Your task to perform on an android device: turn on javascript in the chrome app Image 0: 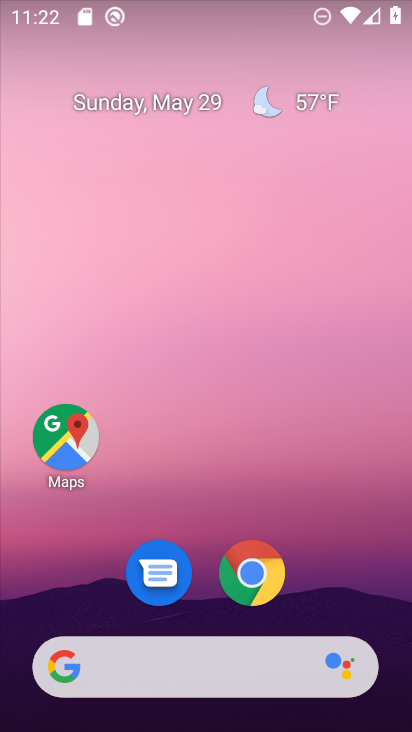
Step 0: drag from (74, 624) to (56, 16)
Your task to perform on an android device: turn on javascript in the chrome app Image 1: 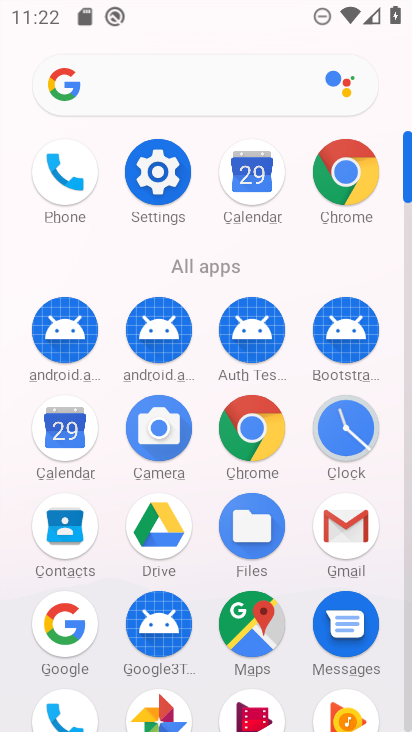
Step 1: click (246, 414)
Your task to perform on an android device: turn on javascript in the chrome app Image 2: 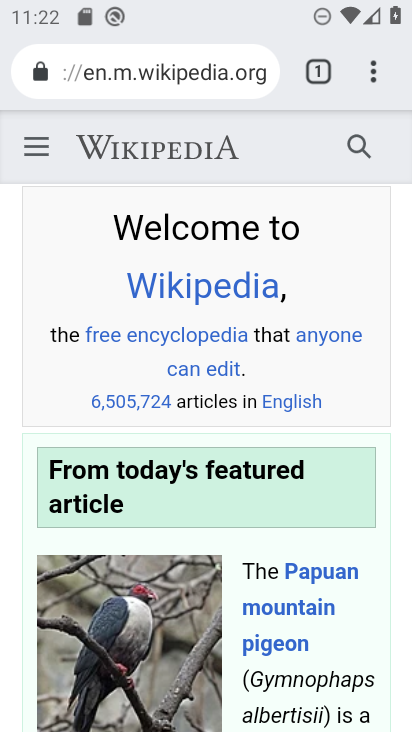
Step 2: drag from (368, 59) to (129, 565)
Your task to perform on an android device: turn on javascript in the chrome app Image 3: 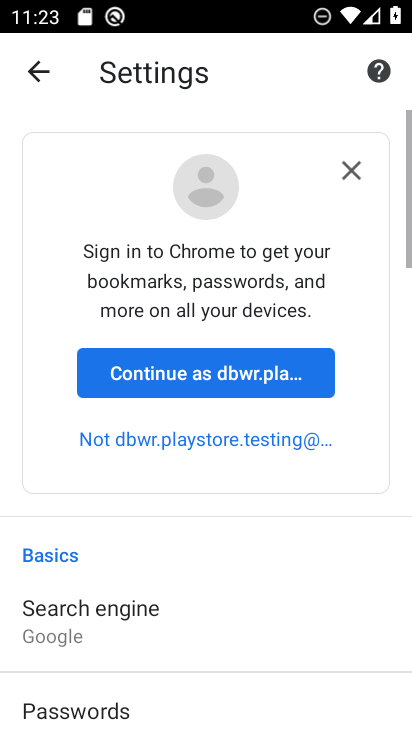
Step 3: drag from (208, 694) to (110, 78)
Your task to perform on an android device: turn on javascript in the chrome app Image 4: 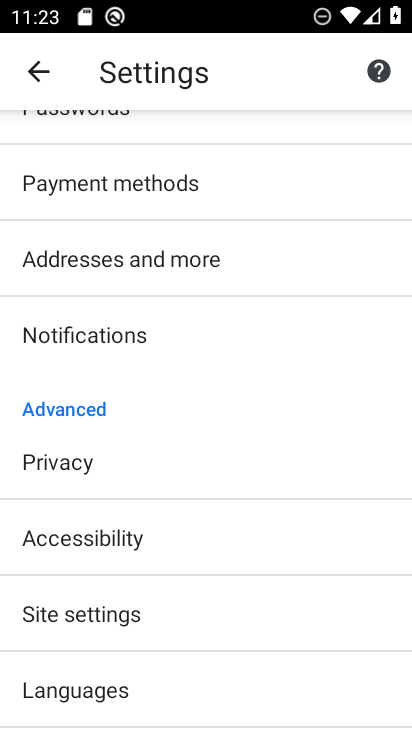
Step 4: click (186, 604)
Your task to perform on an android device: turn on javascript in the chrome app Image 5: 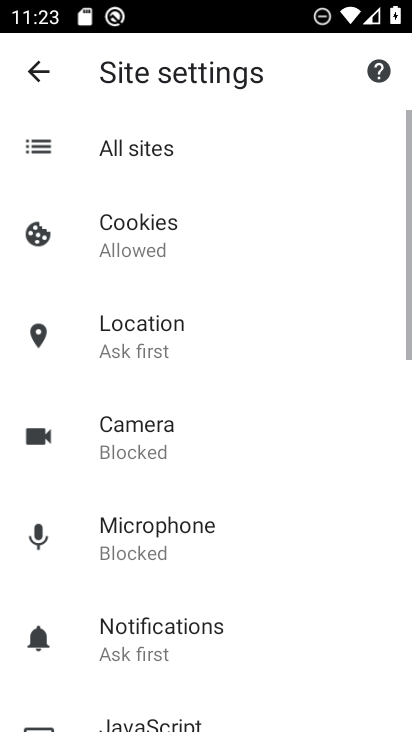
Step 5: drag from (193, 588) to (192, 422)
Your task to perform on an android device: turn on javascript in the chrome app Image 6: 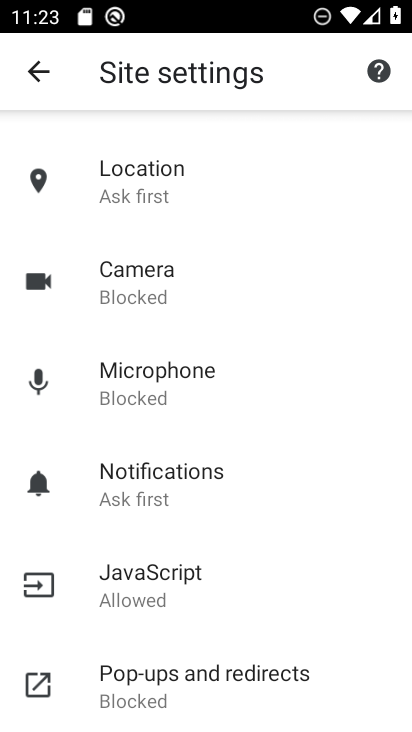
Step 6: click (195, 577)
Your task to perform on an android device: turn on javascript in the chrome app Image 7: 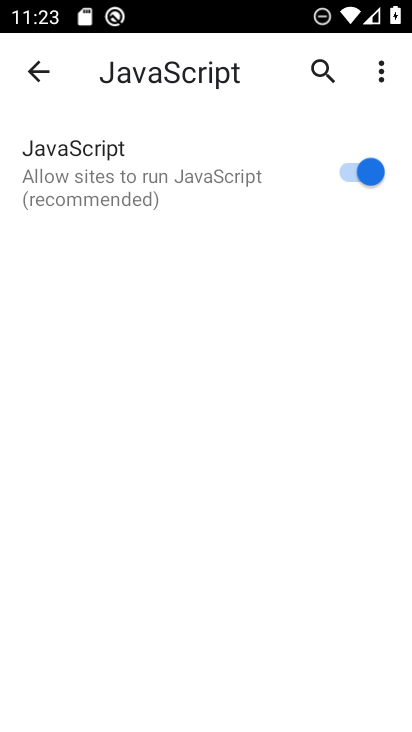
Step 7: task complete